Your task to perform on an android device: Go to sound settings Image 0: 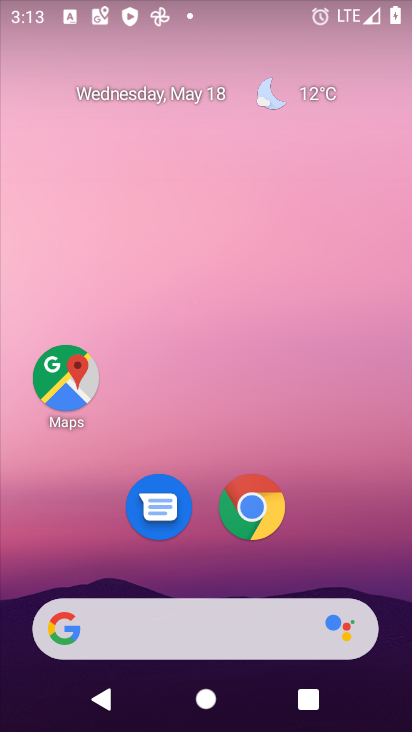
Step 0: drag from (395, 615) to (292, 97)
Your task to perform on an android device: Go to sound settings Image 1: 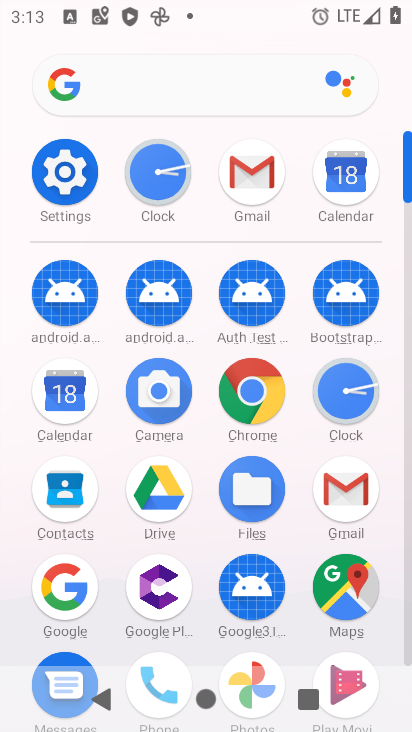
Step 1: click (407, 651)
Your task to perform on an android device: Go to sound settings Image 2: 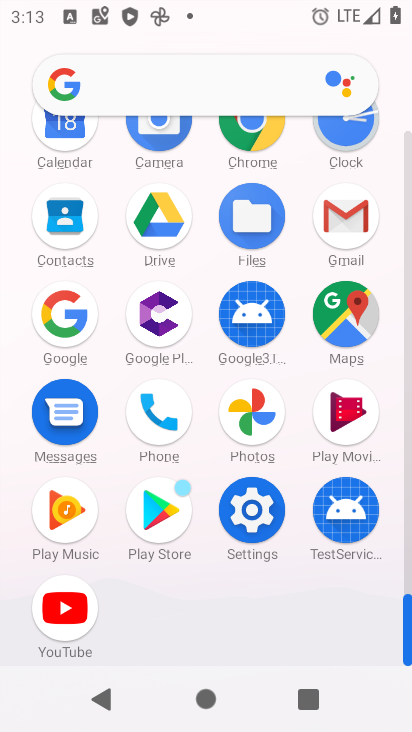
Step 2: click (249, 513)
Your task to perform on an android device: Go to sound settings Image 3: 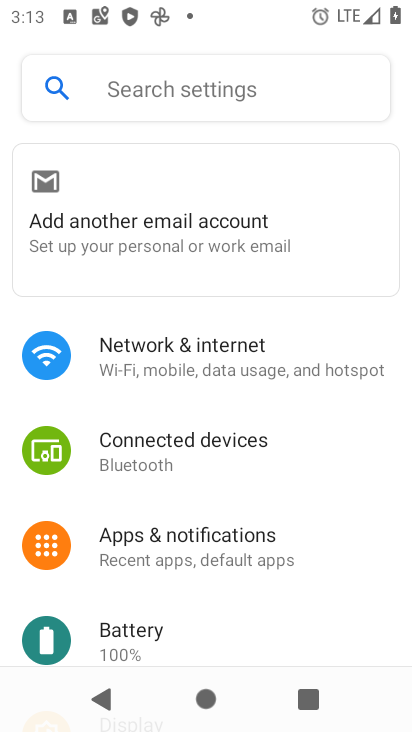
Step 3: drag from (309, 602) to (251, 152)
Your task to perform on an android device: Go to sound settings Image 4: 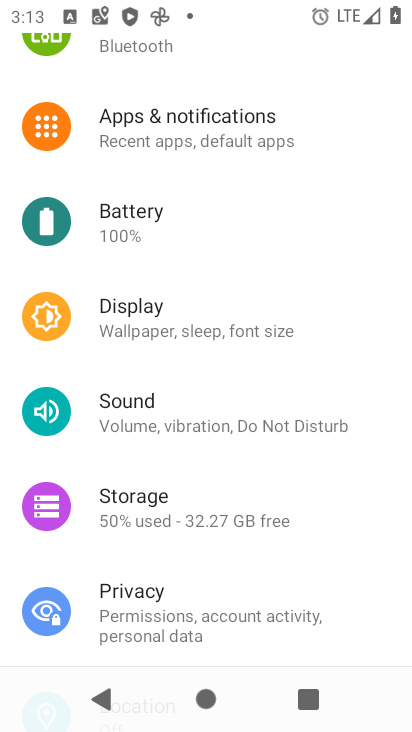
Step 4: click (113, 404)
Your task to perform on an android device: Go to sound settings Image 5: 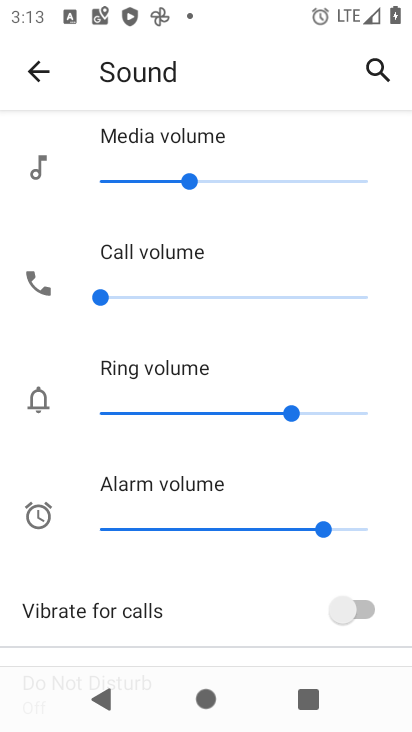
Step 5: task complete